Your task to perform on an android device: What's on my calendar tomorrow? Image 0: 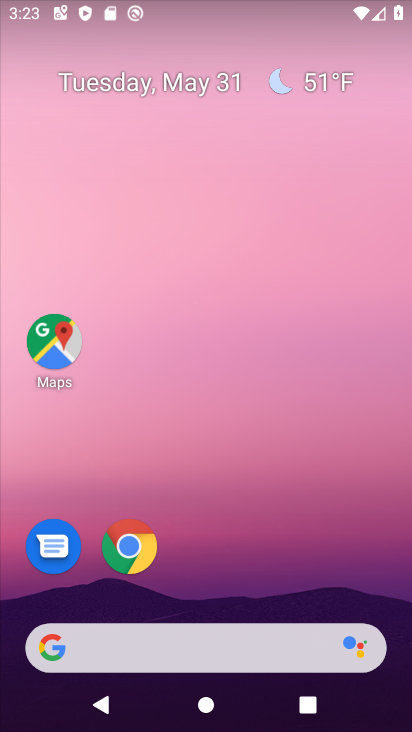
Step 0: drag from (199, 589) to (218, 117)
Your task to perform on an android device: What's on my calendar tomorrow? Image 1: 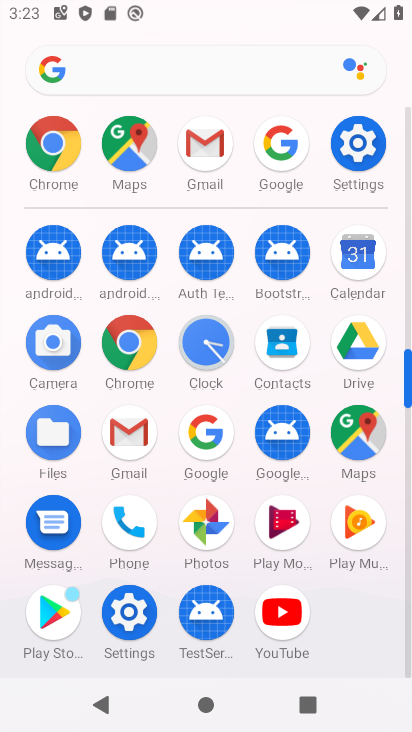
Step 1: click (361, 279)
Your task to perform on an android device: What's on my calendar tomorrow? Image 2: 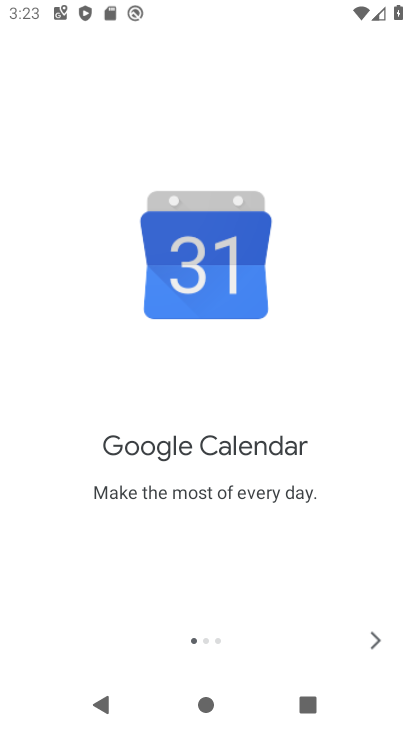
Step 2: click (369, 646)
Your task to perform on an android device: What's on my calendar tomorrow? Image 3: 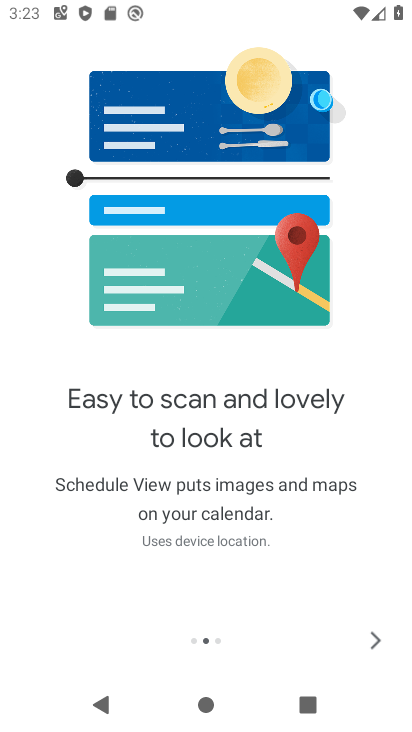
Step 3: click (369, 646)
Your task to perform on an android device: What's on my calendar tomorrow? Image 4: 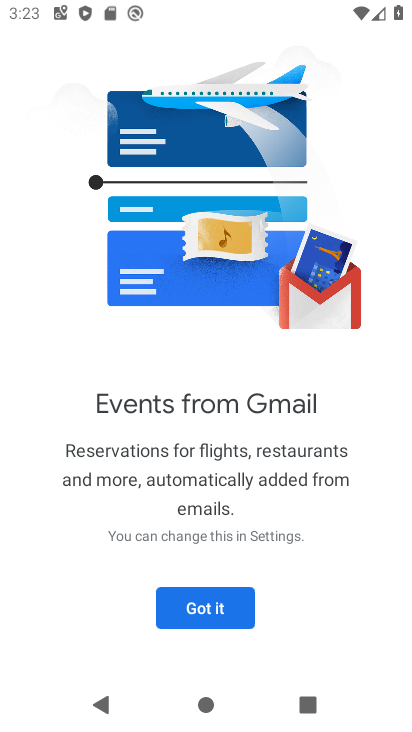
Step 4: click (219, 613)
Your task to perform on an android device: What's on my calendar tomorrow? Image 5: 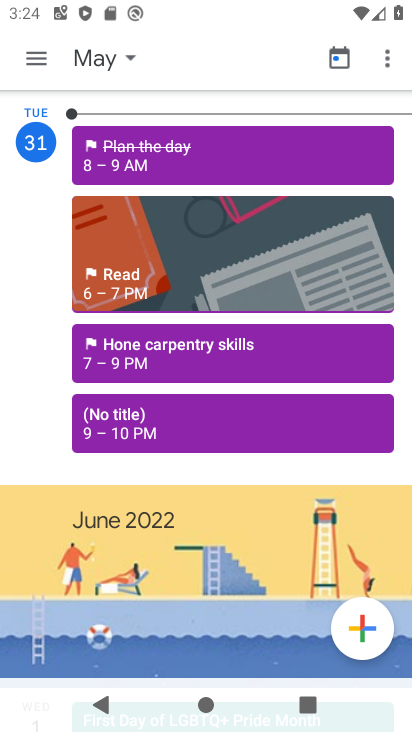
Step 5: click (34, 62)
Your task to perform on an android device: What's on my calendar tomorrow? Image 6: 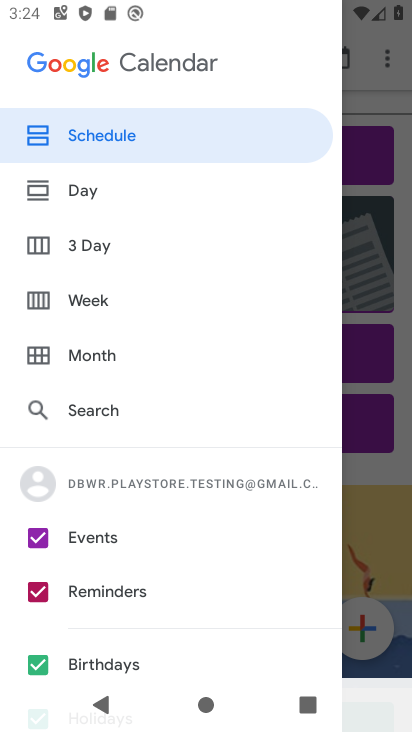
Step 6: click (84, 137)
Your task to perform on an android device: What's on my calendar tomorrow? Image 7: 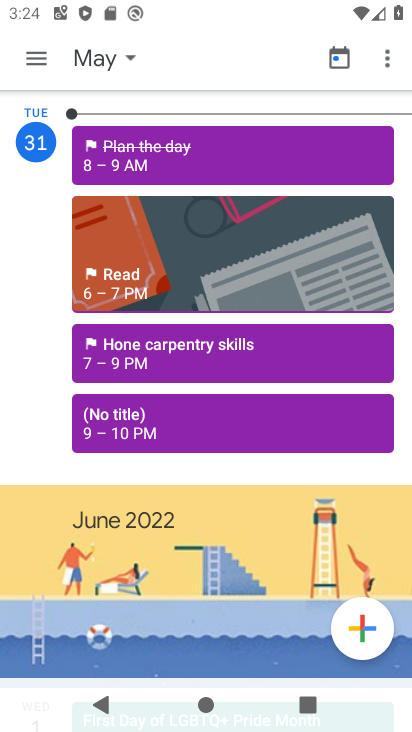
Step 7: click (105, 66)
Your task to perform on an android device: What's on my calendar tomorrow? Image 8: 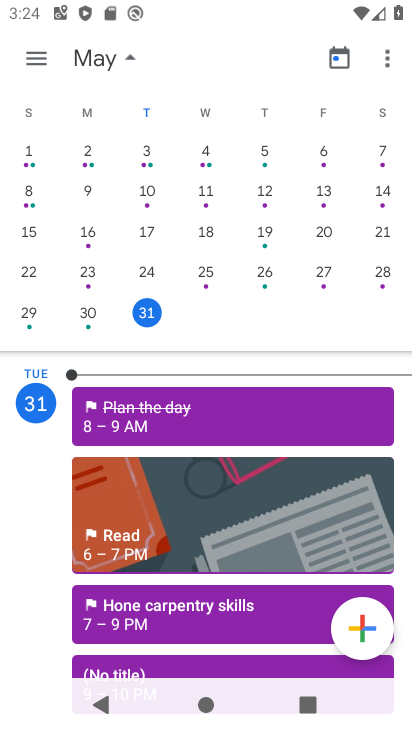
Step 8: drag from (296, 187) to (18, 165)
Your task to perform on an android device: What's on my calendar tomorrow? Image 9: 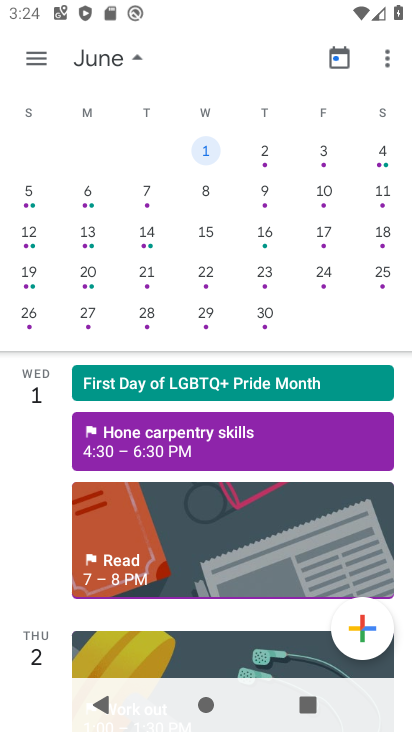
Step 9: click (204, 157)
Your task to perform on an android device: What's on my calendar tomorrow? Image 10: 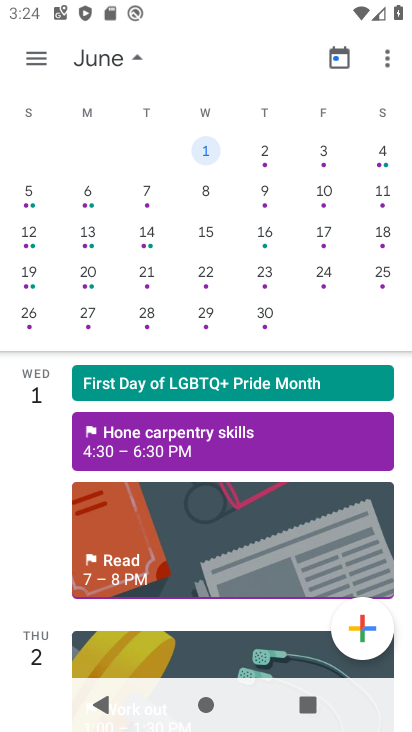
Step 10: task complete